Your task to perform on an android device: What's the weather today? Image 0: 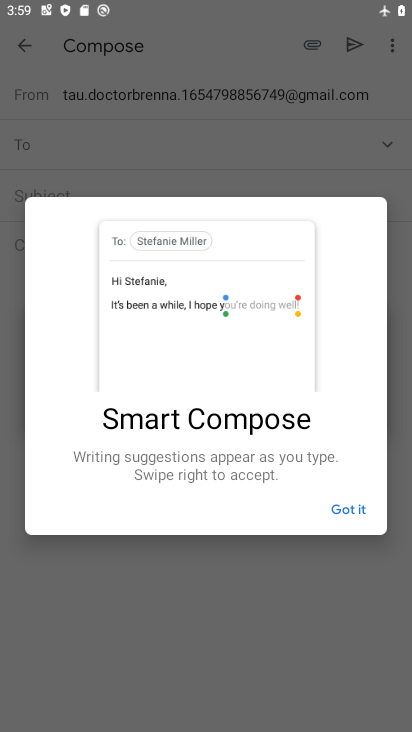
Step 0: press home button
Your task to perform on an android device: What's the weather today? Image 1: 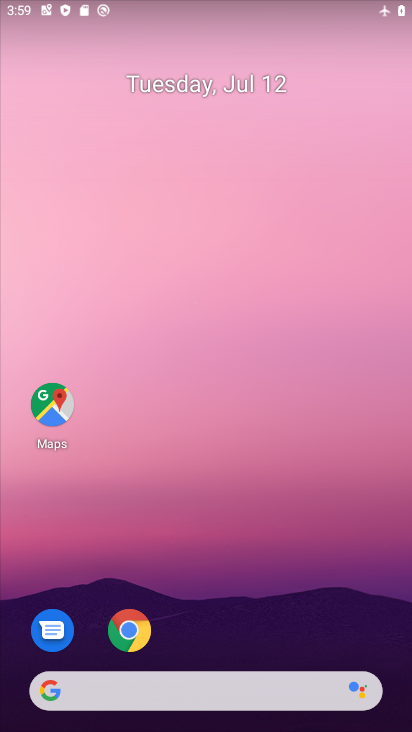
Step 1: drag from (285, 687) to (327, 7)
Your task to perform on an android device: What's the weather today? Image 2: 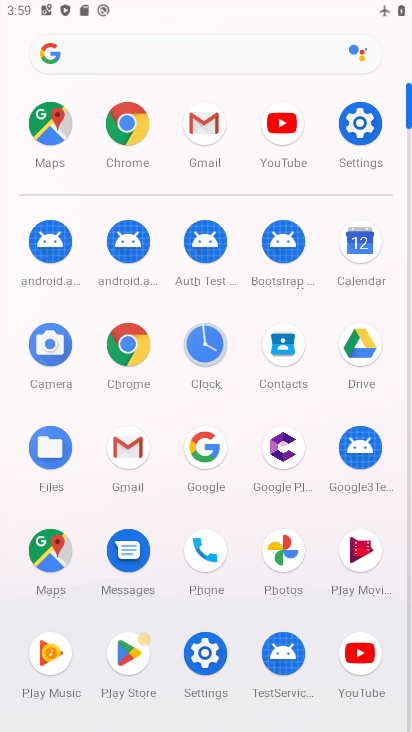
Step 2: click (131, 347)
Your task to perform on an android device: What's the weather today? Image 3: 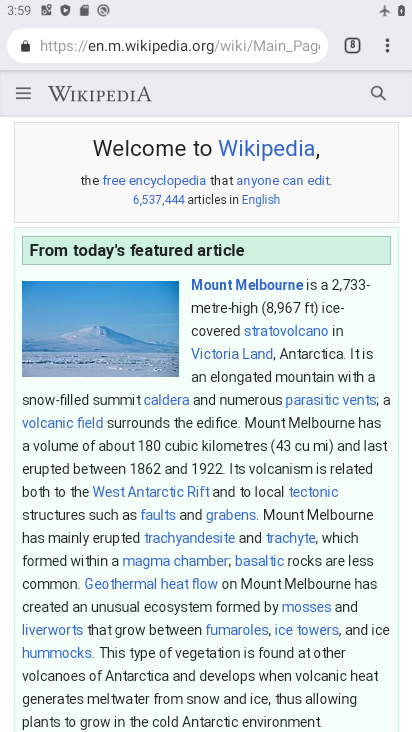
Step 3: click (203, 36)
Your task to perform on an android device: What's the weather today? Image 4: 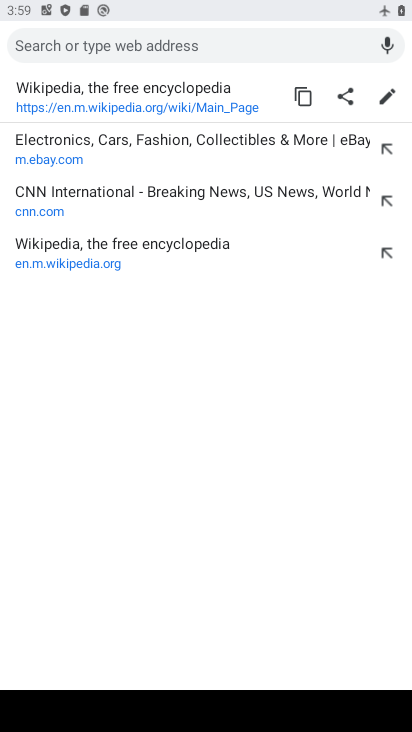
Step 4: type "weather today"
Your task to perform on an android device: What's the weather today? Image 5: 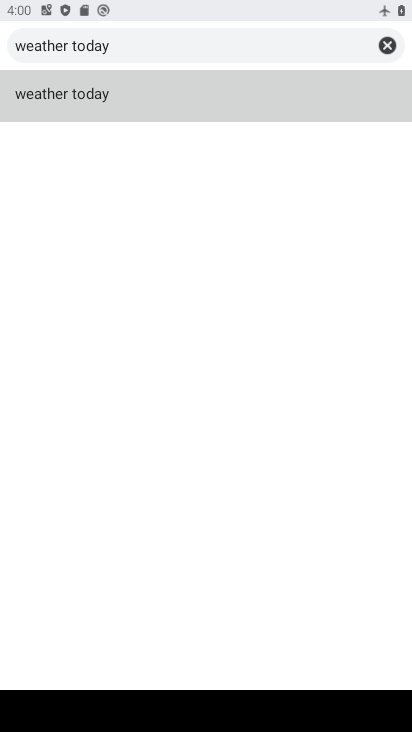
Step 5: click (80, 98)
Your task to perform on an android device: What's the weather today? Image 6: 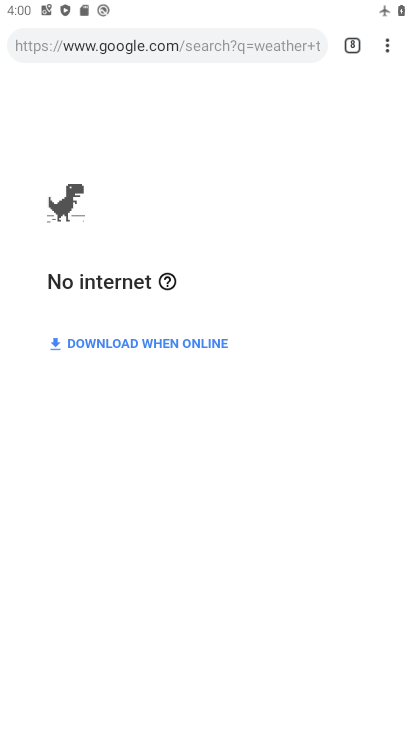
Step 6: task complete